Your task to perform on an android device: Open Google Maps and go to "Timeline" Image 0: 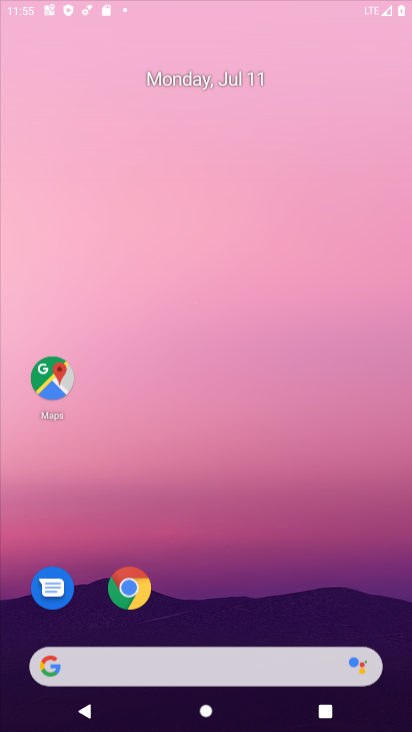
Step 0: drag from (252, 603) to (199, 124)
Your task to perform on an android device: Open Google Maps and go to "Timeline" Image 1: 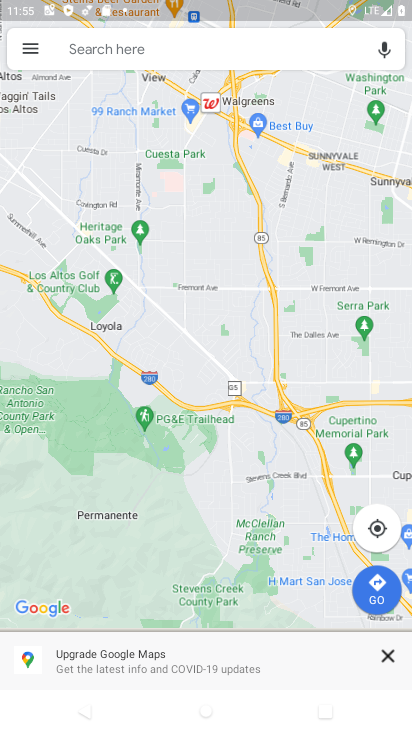
Step 1: click (22, 47)
Your task to perform on an android device: Open Google Maps and go to "Timeline" Image 2: 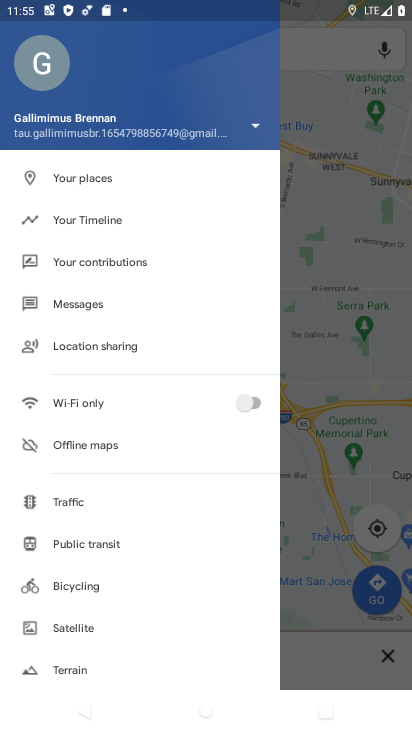
Step 2: click (92, 222)
Your task to perform on an android device: Open Google Maps and go to "Timeline" Image 3: 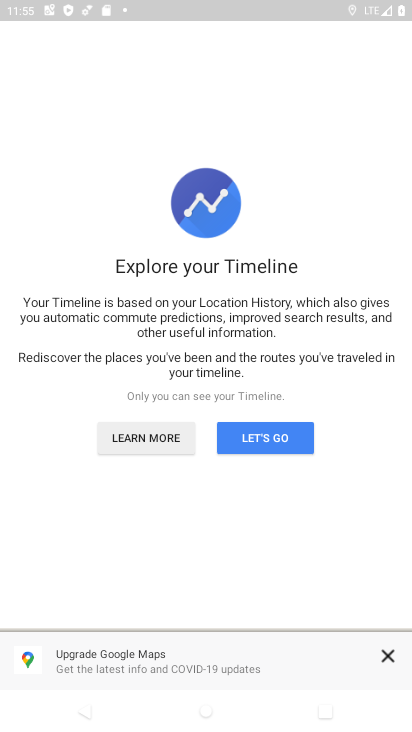
Step 3: click (266, 440)
Your task to perform on an android device: Open Google Maps and go to "Timeline" Image 4: 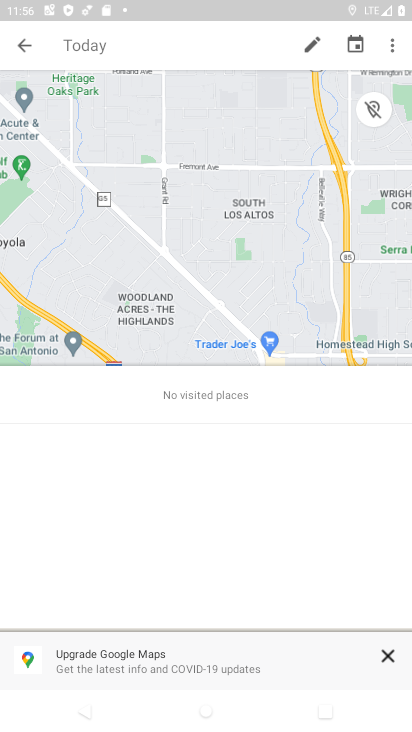
Step 4: task complete